Your task to perform on an android device: Open Youtube and go to the subscriptions tab Image 0: 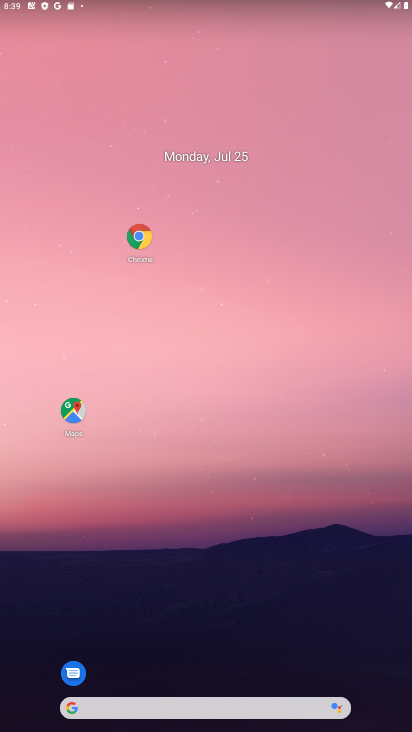
Step 0: drag from (272, 666) to (281, 206)
Your task to perform on an android device: Open Youtube and go to the subscriptions tab Image 1: 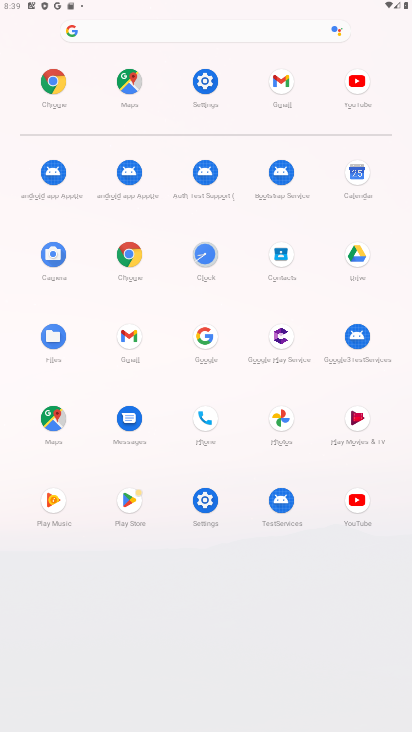
Step 1: click (339, 113)
Your task to perform on an android device: Open Youtube and go to the subscriptions tab Image 2: 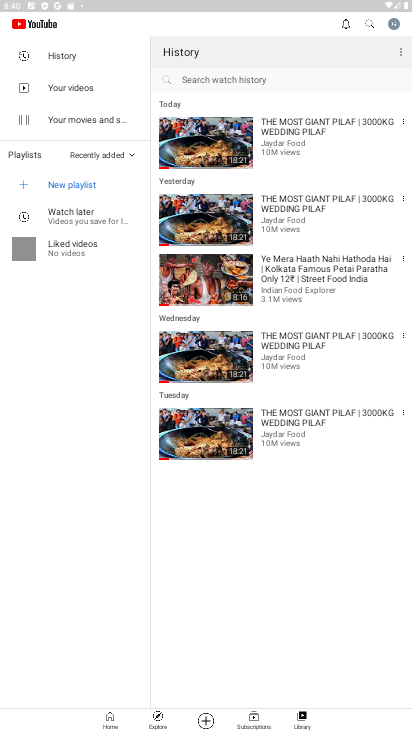
Step 2: task complete